Your task to perform on an android device: open app "Pandora - Music & Podcasts" (install if not already installed) and go to login screen Image 0: 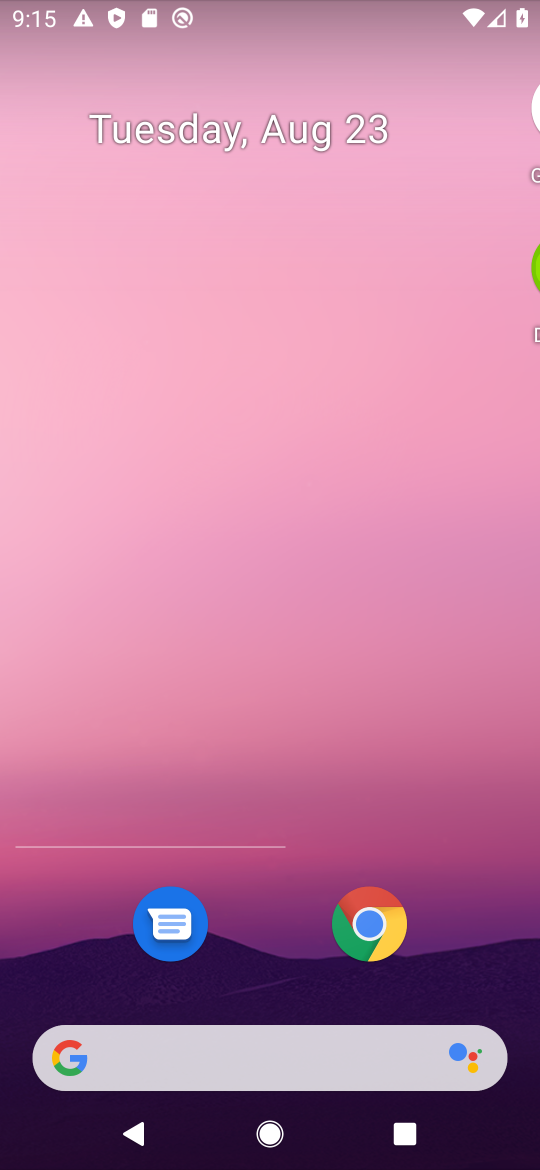
Step 0: press home button
Your task to perform on an android device: open app "Pandora - Music & Podcasts" (install if not already installed) and go to login screen Image 1: 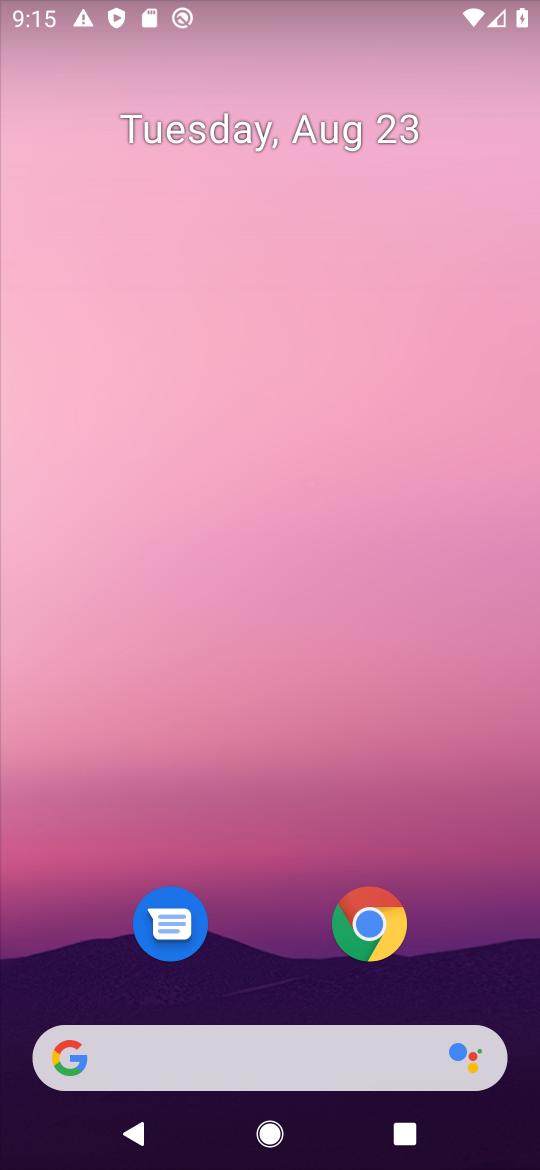
Step 1: drag from (472, 954) to (475, 94)
Your task to perform on an android device: open app "Pandora - Music & Podcasts" (install if not already installed) and go to login screen Image 2: 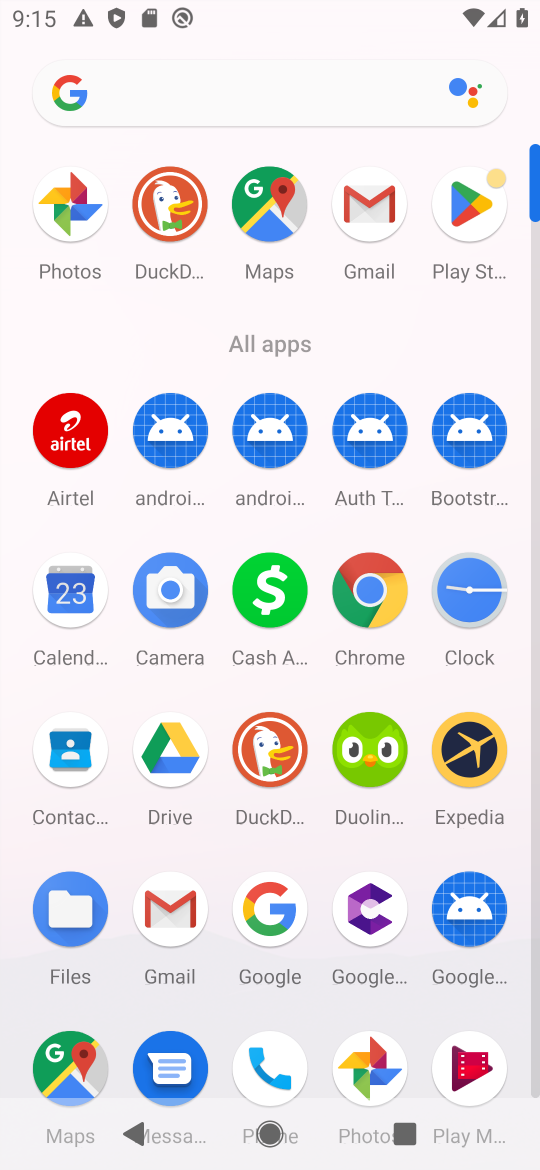
Step 2: click (467, 209)
Your task to perform on an android device: open app "Pandora - Music & Podcasts" (install if not already installed) and go to login screen Image 3: 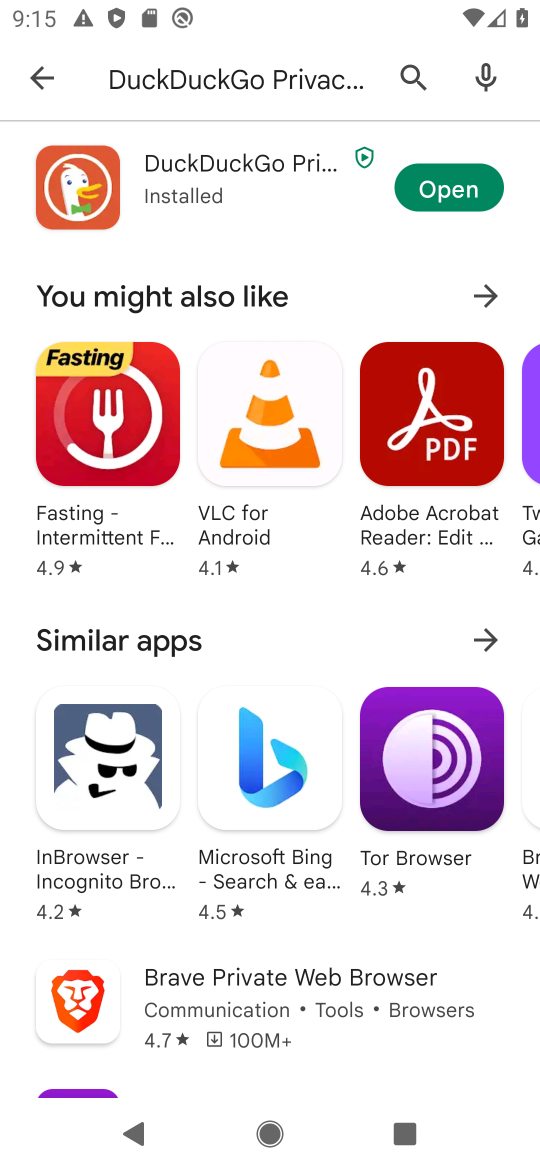
Step 3: press back button
Your task to perform on an android device: open app "Pandora - Music & Podcasts" (install if not already installed) and go to login screen Image 4: 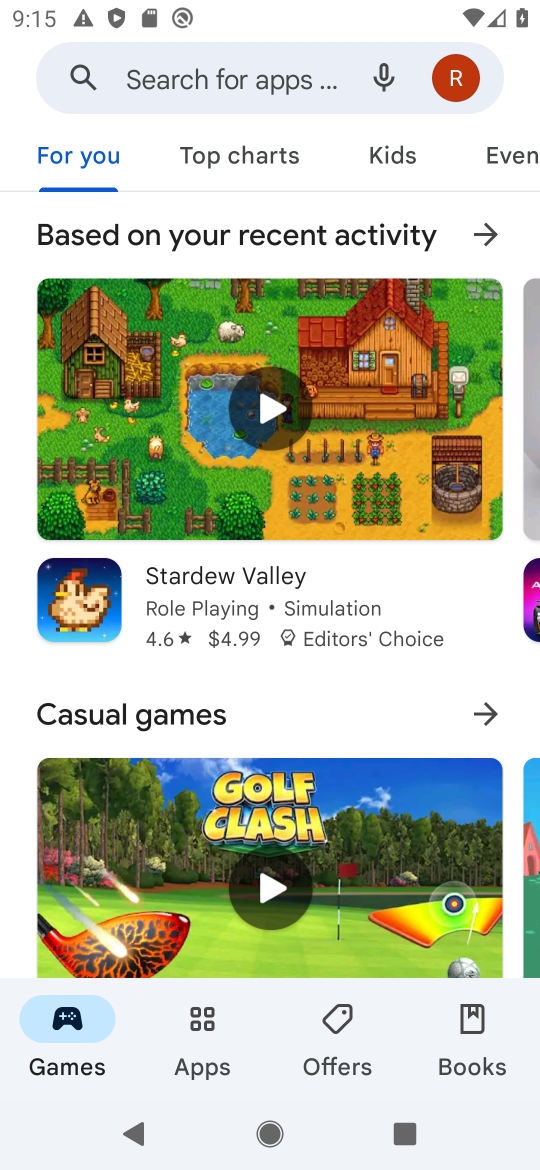
Step 4: click (252, 71)
Your task to perform on an android device: open app "Pandora - Music & Podcasts" (install if not already installed) and go to login screen Image 5: 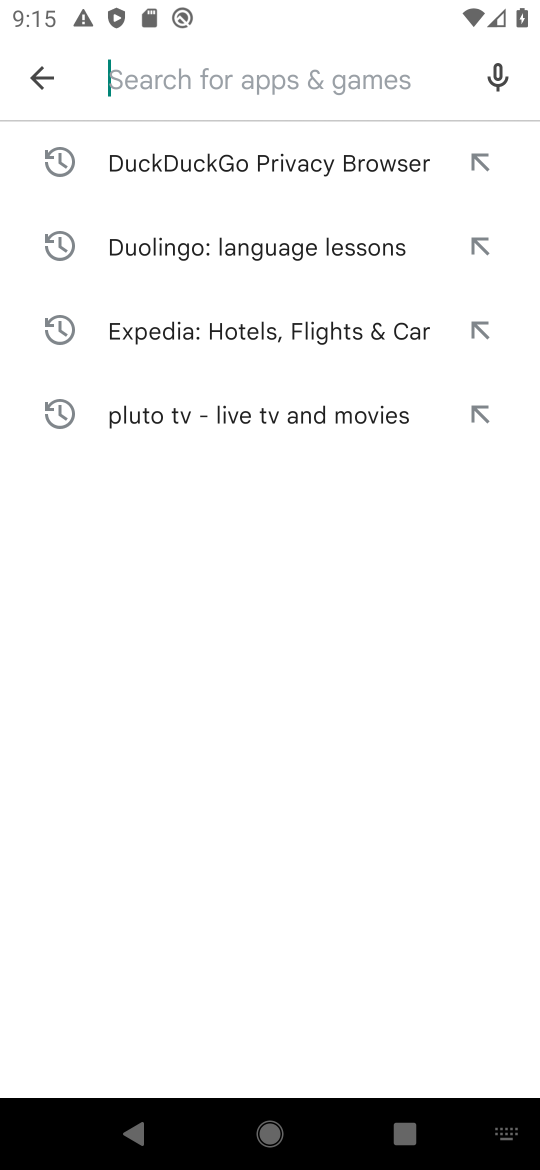
Step 5: press enter
Your task to perform on an android device: open app "Pandora - Music & Podcasts" (install if not already installed) and go to login screen Image 6: 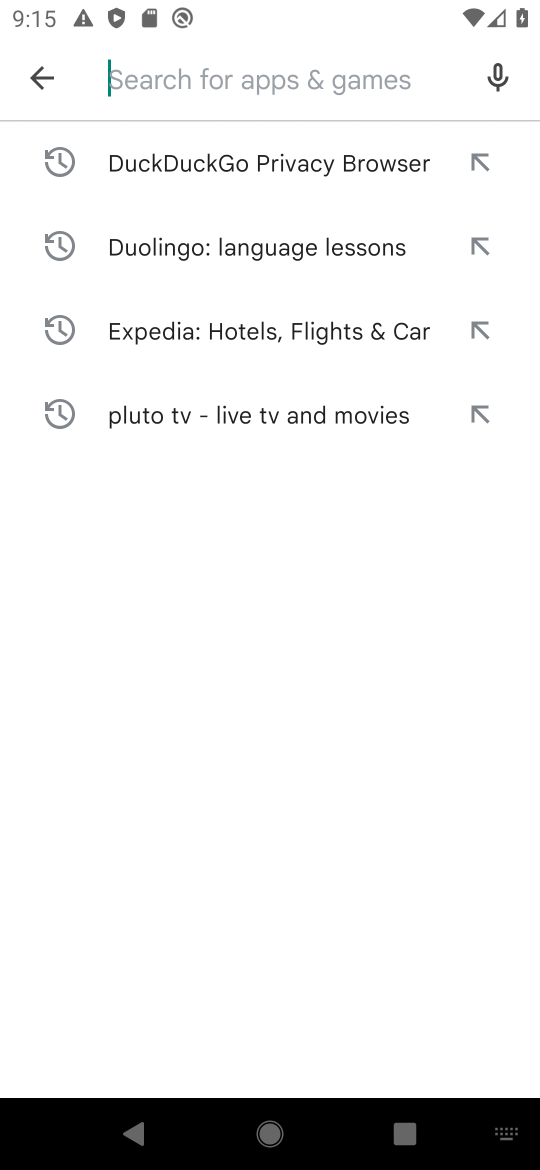
Step 6: type "Pandora - Music & Podcasts"
Your task to perform on an android device: open app "Pandora - Music & Podcasts" (install if not already installed) and go to login screen Image 7: 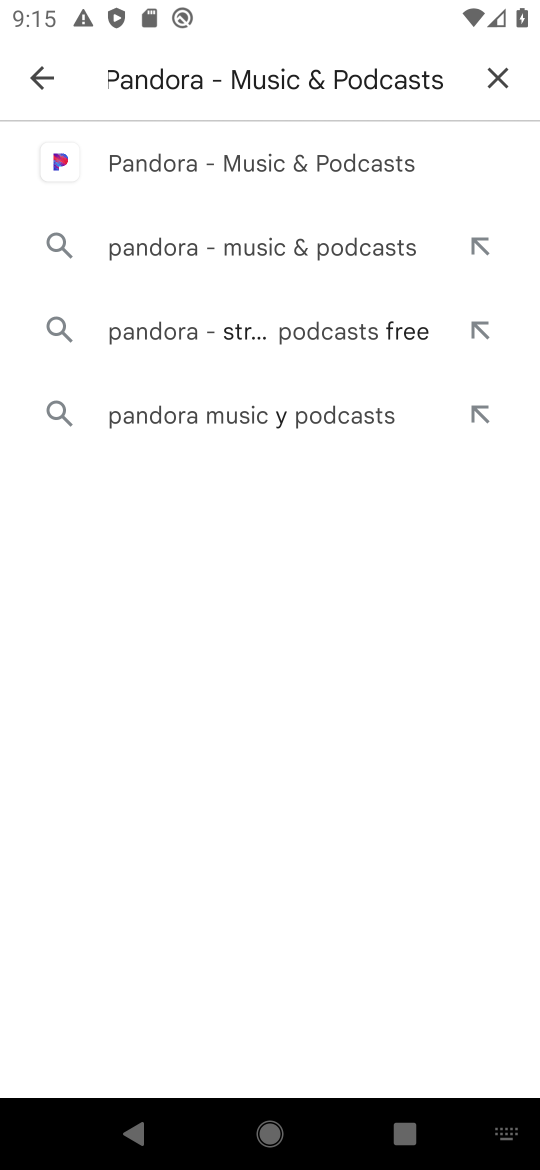
Step 7: click (326, 169)
Your task to perform on an android device: open app "Pandora - Music & Podcasts" (install if not already installed) and go to login screen Image 8: 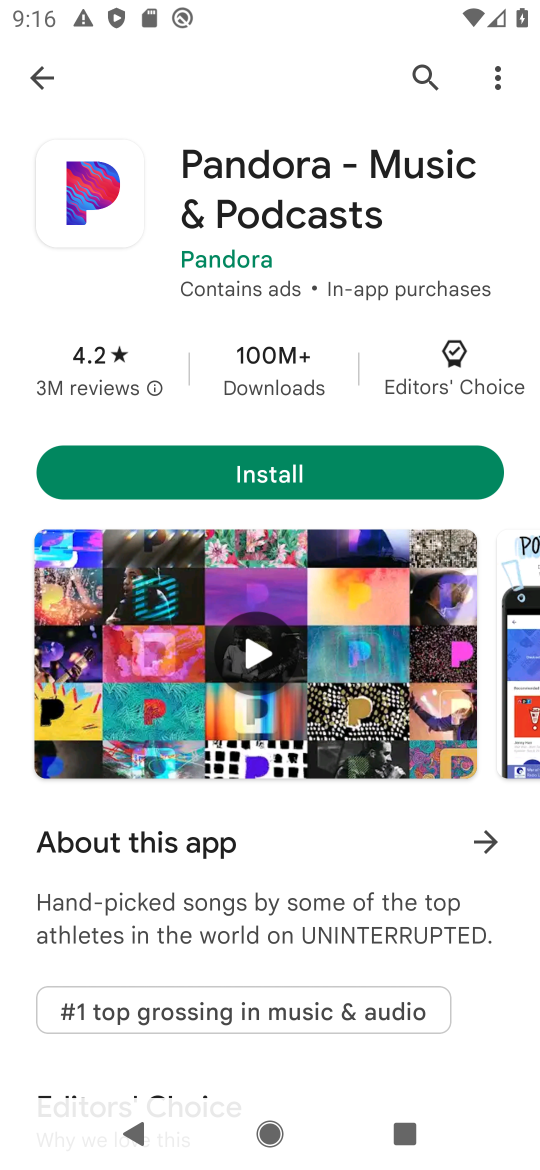
Step 8: click (333, 458)
Your task to perform on an android device: open app "Pandora - Music & Podcasts" (install if not already installed) and go to login screen Image 9: 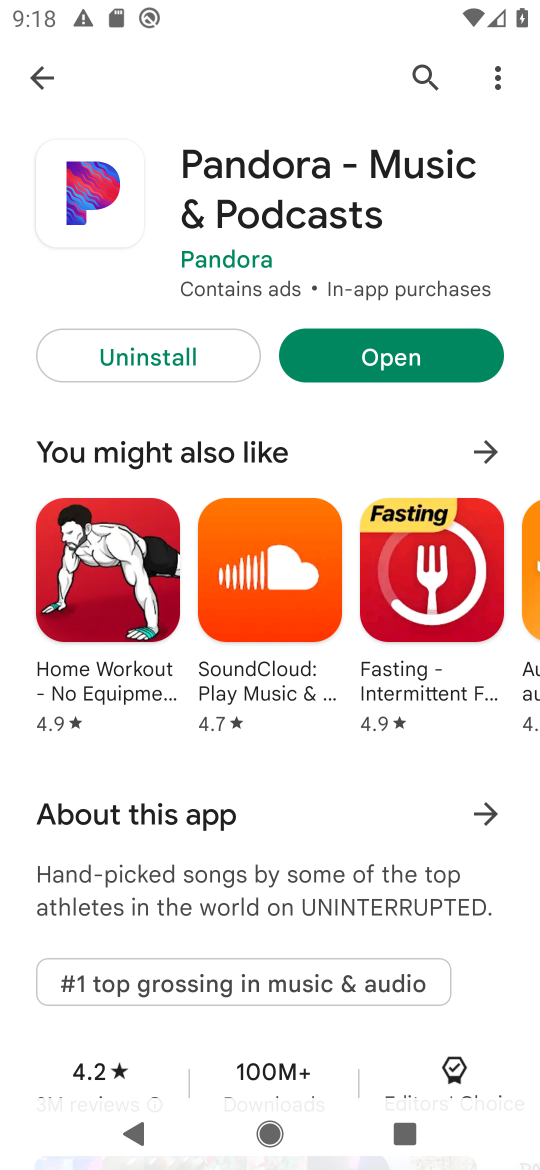
Step 9: click (448, 355)
Your task to perform on an android device: open app "Pandora - Music & Podcasts" (install if not already installed) and go to login screen Image 10: 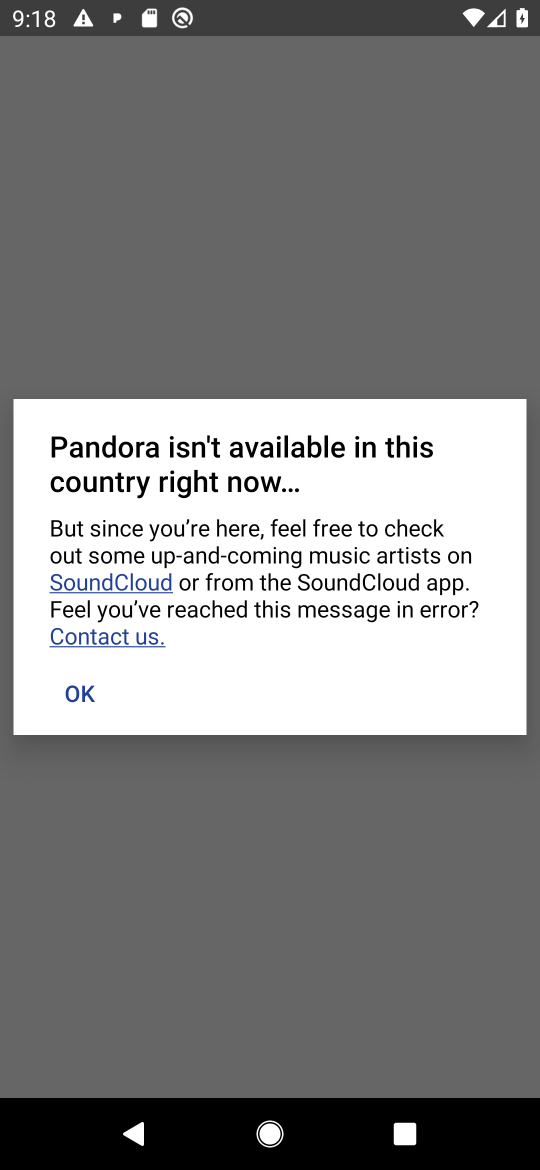
Step 10: click (83, 691)
Your task to perform on an android device: open app "Pandora - Music & Podcasts" (install if not already installed) and go to login screen Image 11: 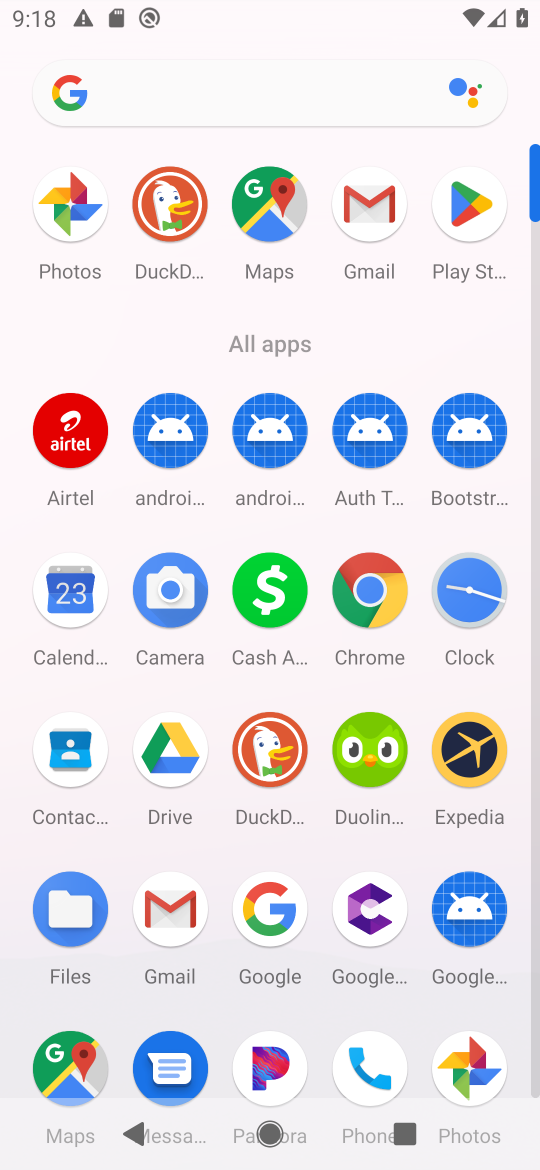
Step 11: click (273, 1060)
Your task to perform on an android device: open app "Pandora - Music & Podcasts" (install if not already installed) and go to login screen Image 12: 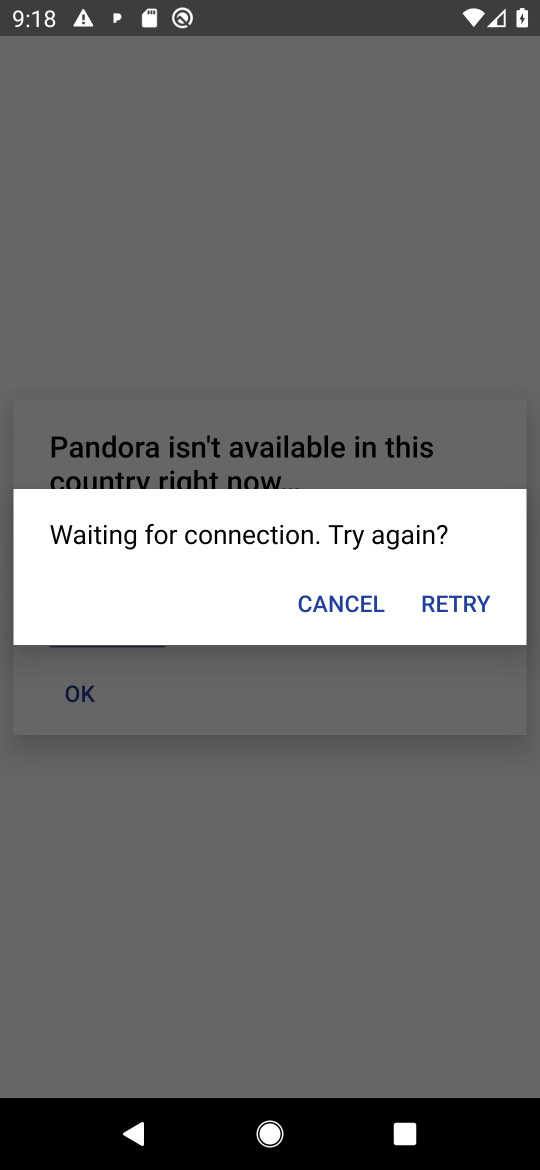
Step 12: task complete